Your task to perform on an android device: turn on improve location accuracy Image 0: 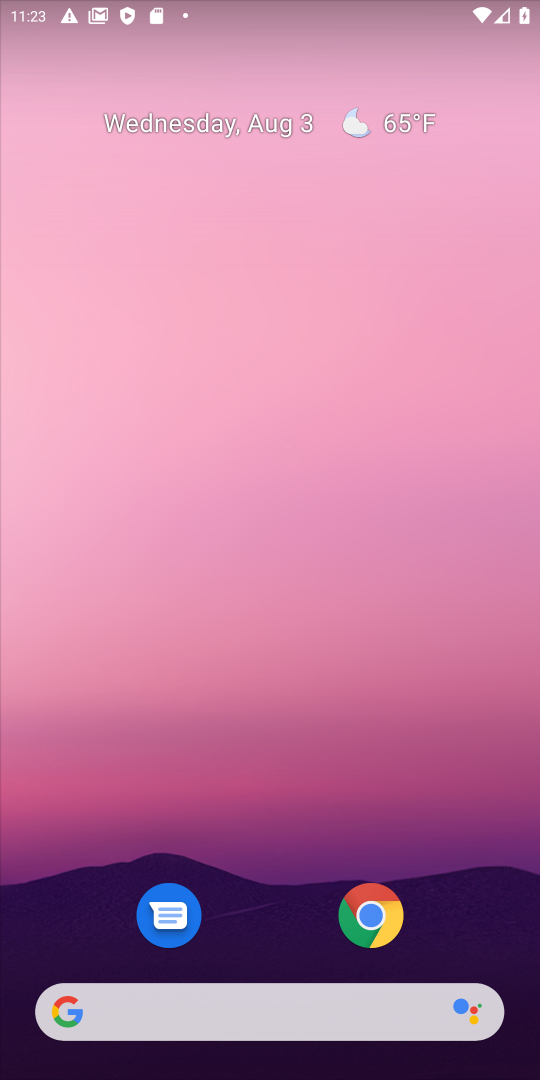
Step 0: drag from (277, 529) to (123, 16)
Your task to perform on an android device: turn on improve location accuracy Image 1: 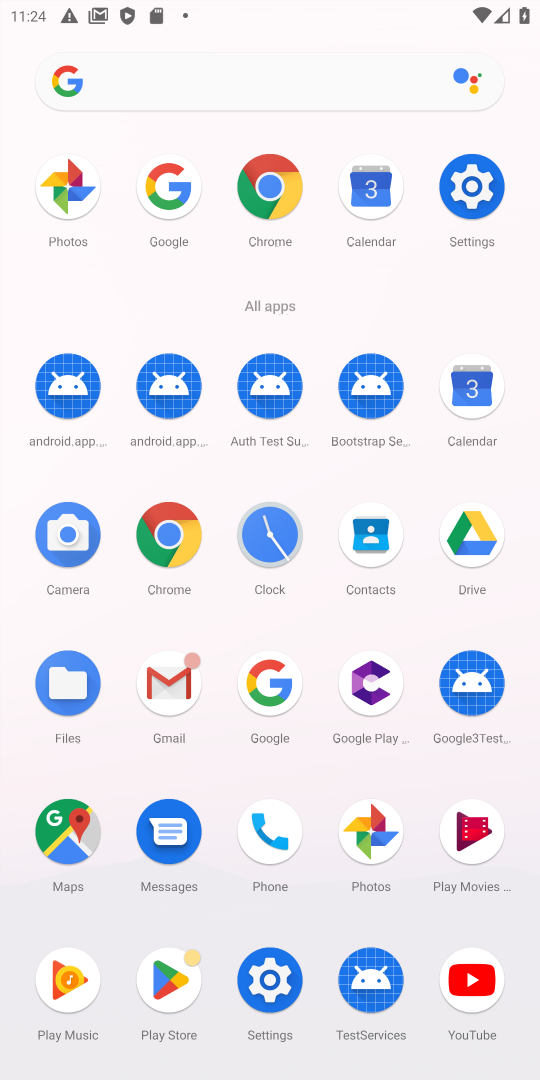
Step 1: click (467, 189)
Your task to perform on an android device: turn on improve location accuracy Image 2: 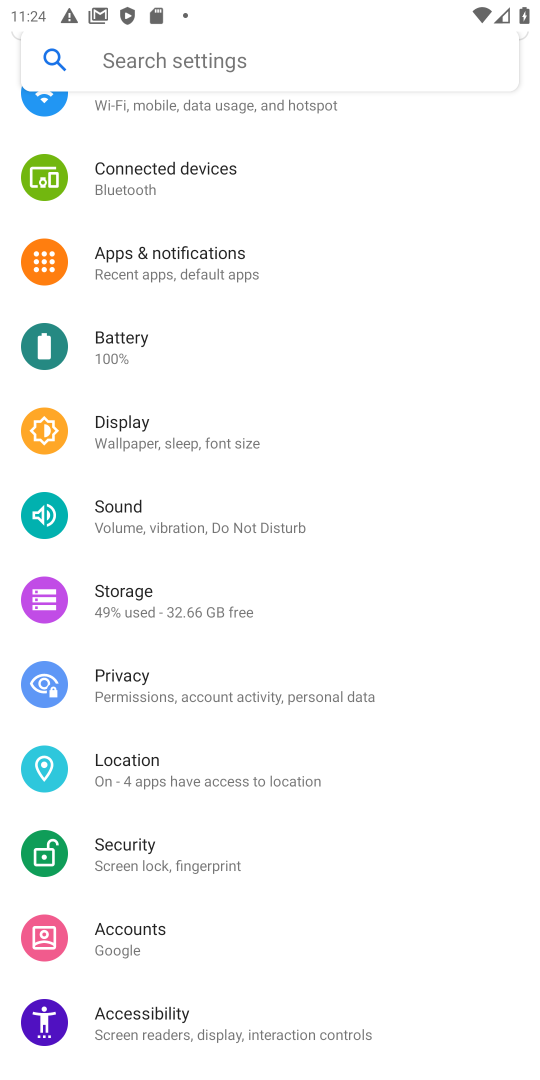
Step 2: click (128, 762)
Your task to perform on an android device: turn on improve location accuracy Image 3: 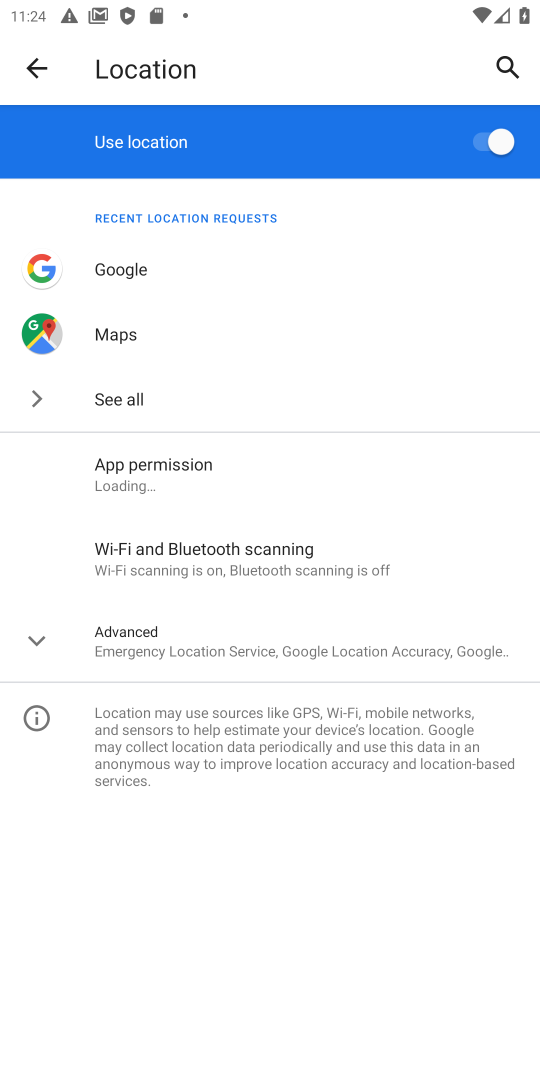
Step 3: click (133, 637)
Your task to perform on an android device: turn on improve location accuracy Image 4: 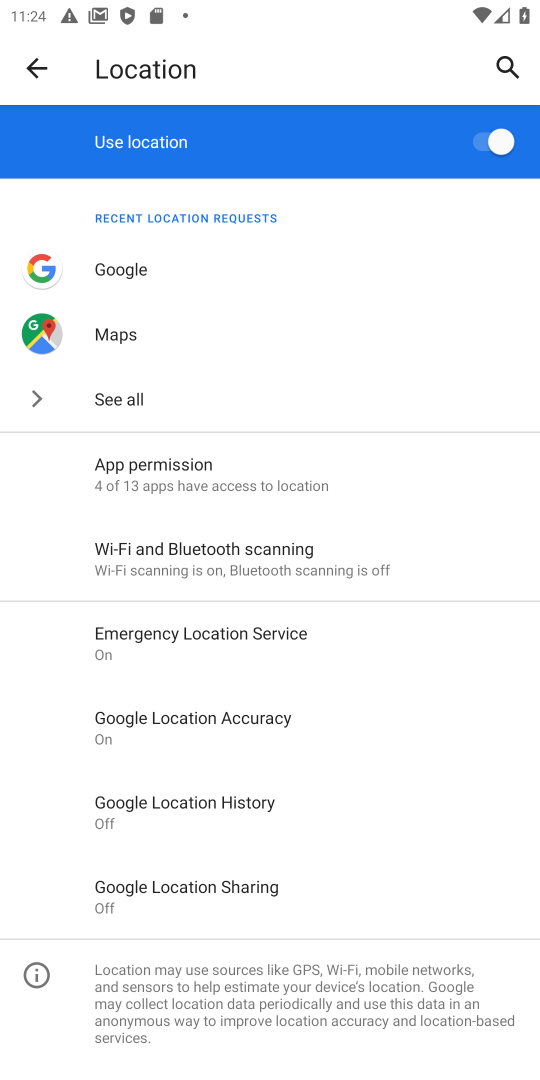
Step 4: click (217, 720)
Your task to perform on an android device: turn on improve location accuracy Image 5: 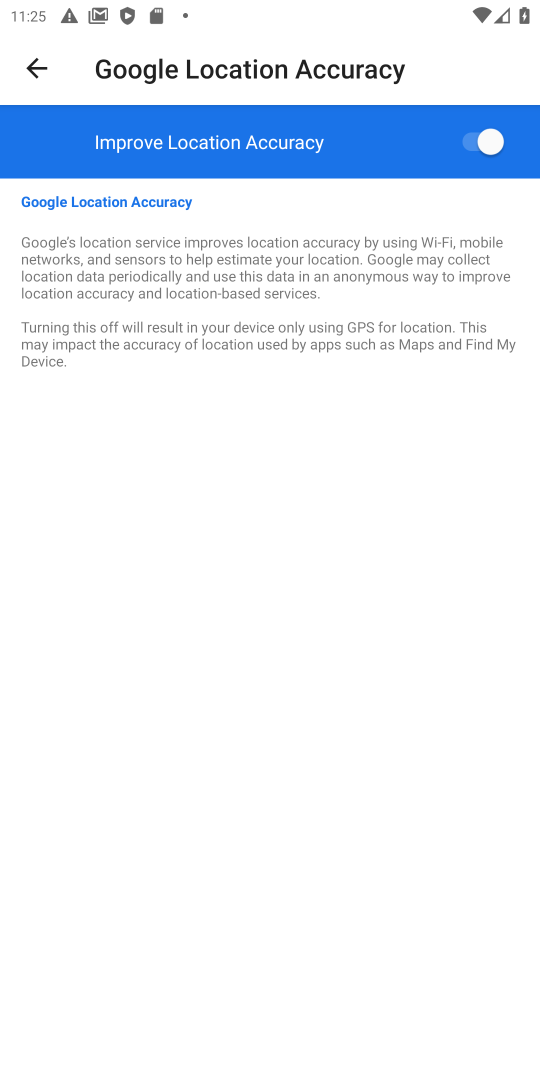
Step 5: task complete